Your task to perform on an android device: change your default location settings in chrome Image 0: 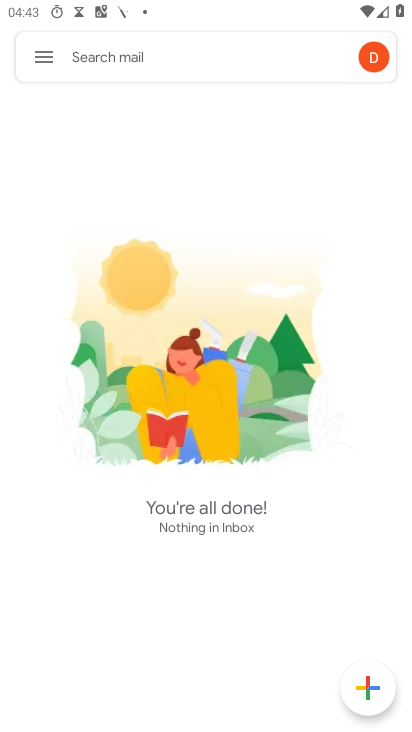
Step 0: press home button
Your task to perform on an android device: change your default location settings in chrome Image 1: 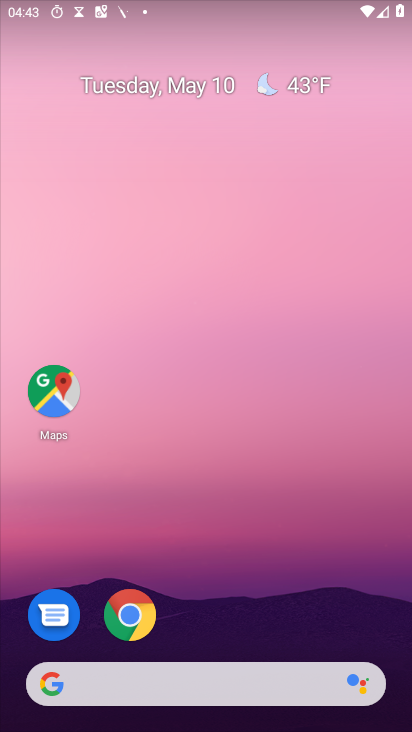
Step 1: drag from (199, 596) to (207, 66)
Your task to perform on an android device: change your default location settings in chrome Image 2: 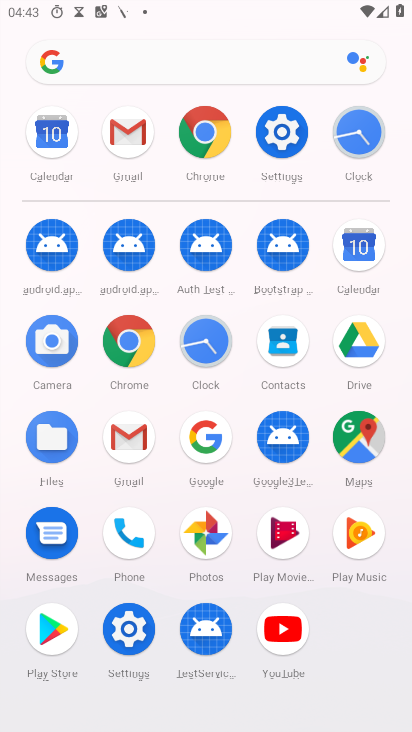
Step 2: click (119, 344)
Your task to perform on an android device: change your default location settings in chrome Image 3: 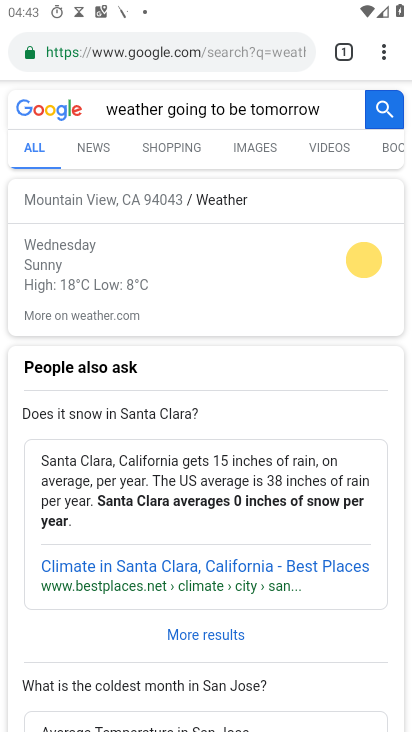
Step 3: click (386, 50)
Your task to perform on an android device: change your default location settings in chrome Image 4: 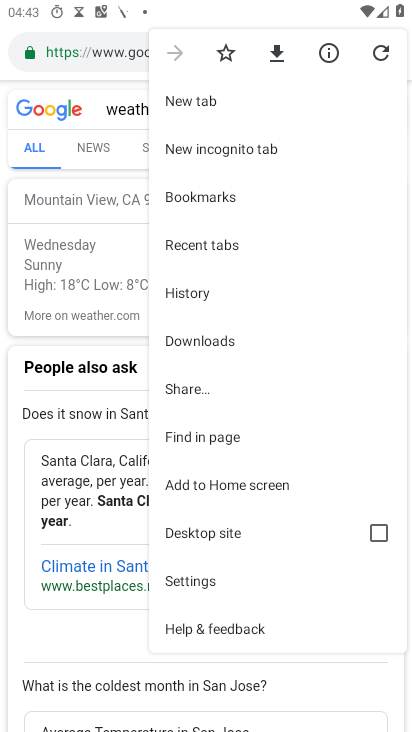
Step 4: click (201, 588)
Your task to perform on an android device: change your default location settings in chrome Image 5: 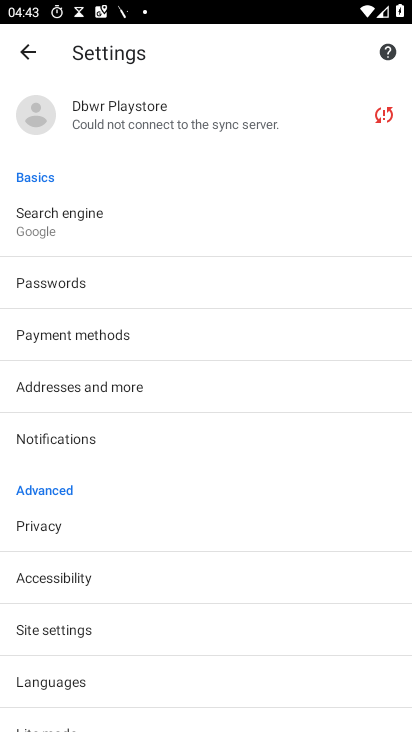
Step 5: drag from (205, 671) to (180, 238)
Your task to perform on an android device: change your default location settings in chrome Image 6: 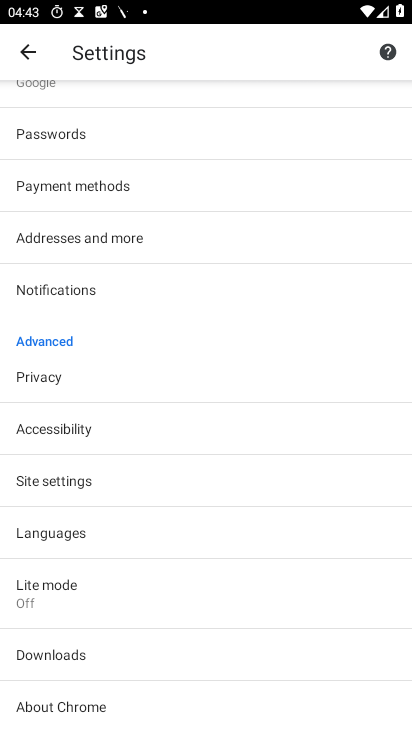
Step 6: click (88, 508)
Your task to perform on an android device: change your default location settings in chrome Image 7: 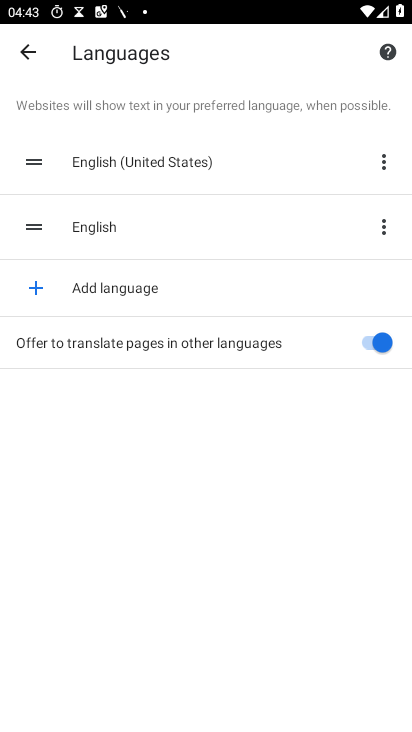
Step 7: press back button
Your task to perform on an android device: change your default location settings in chrome Image 8: 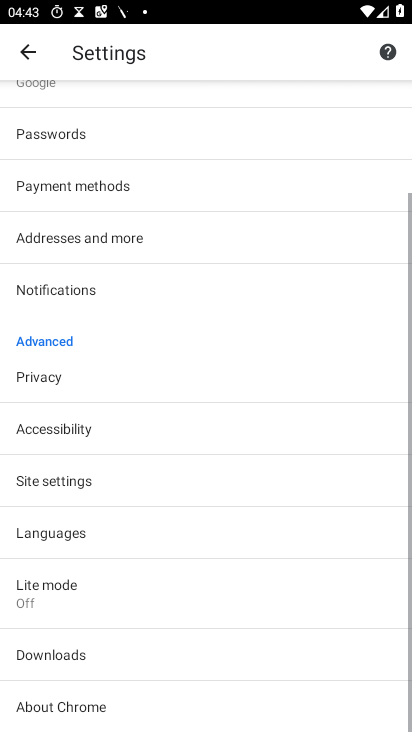
Step 8: click (101, 488)
Your task to perform on an android device: change your default location settings in chrome Image 9: 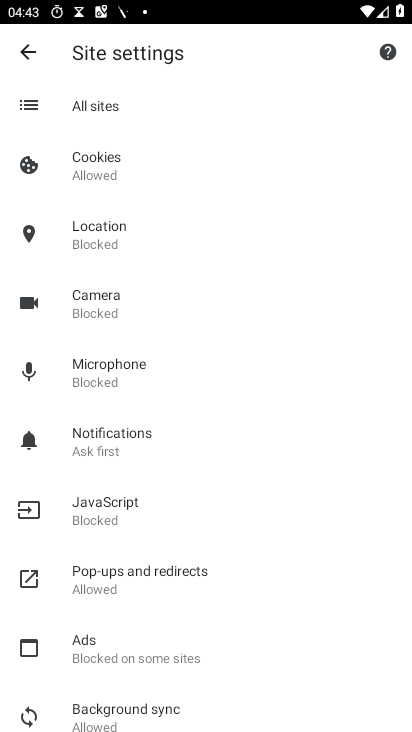
Step 9: click (141, 229)
Your task to perform on an android device: change your default location settings in chrome Image 10: 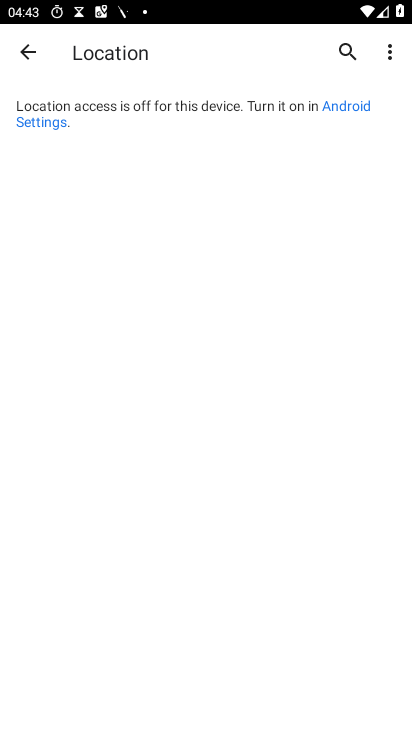
Step 10: task complete